Your task to perform on an android device: see sites visited before in the chrome app Image 0: 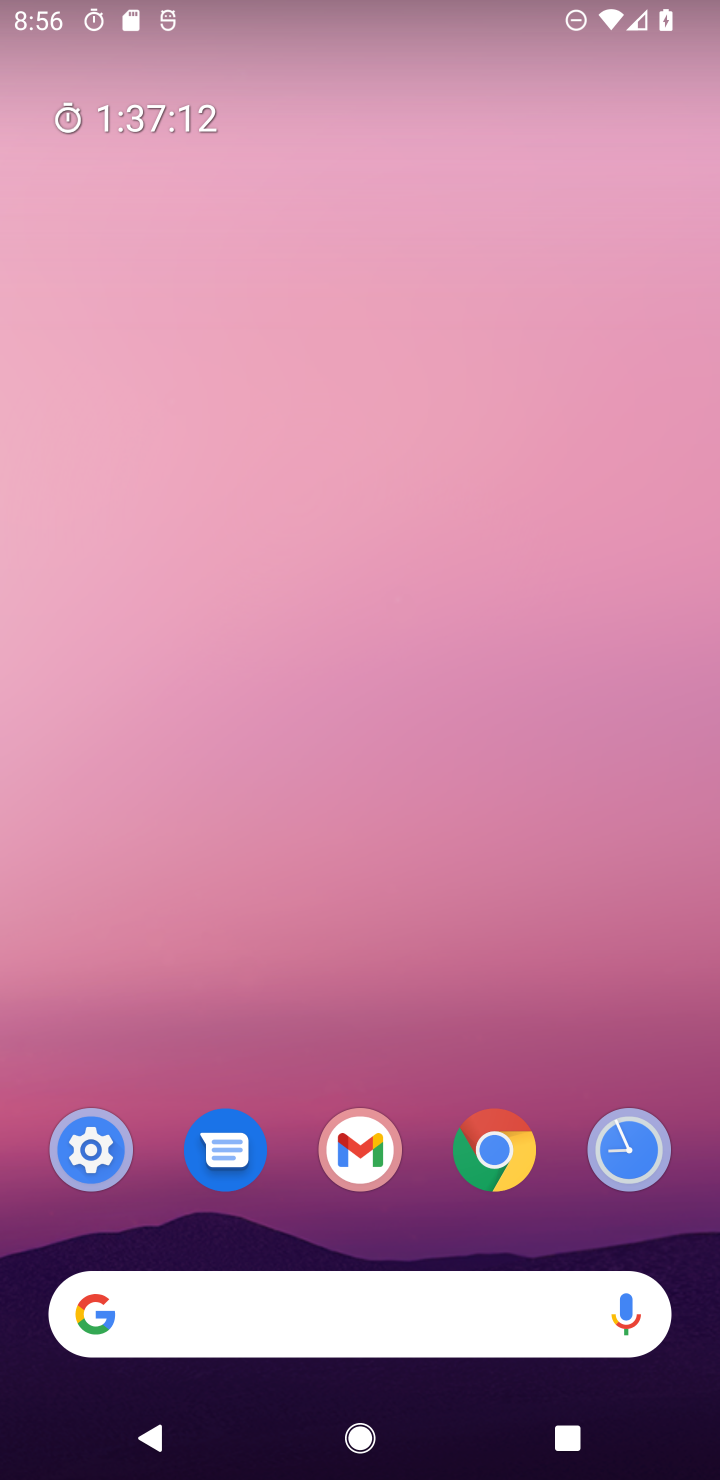
Step 0: drag from (441, 1297) to (495, 24)
Your task to perform on an android device: see sites visited before in the chrome app Image 1: 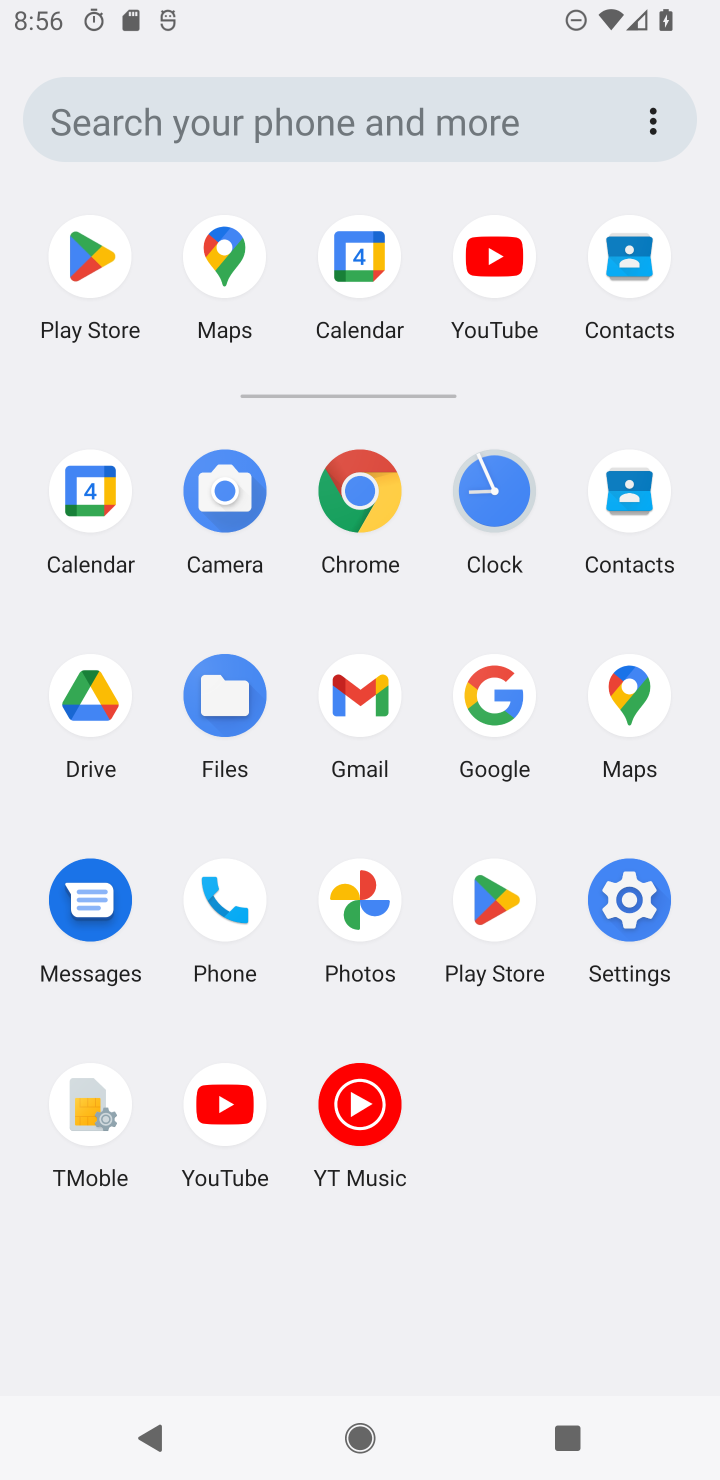
Step 1: click (363, 485)
Your task to perform on an android device: see sites visited before in the chrome app Image 2: 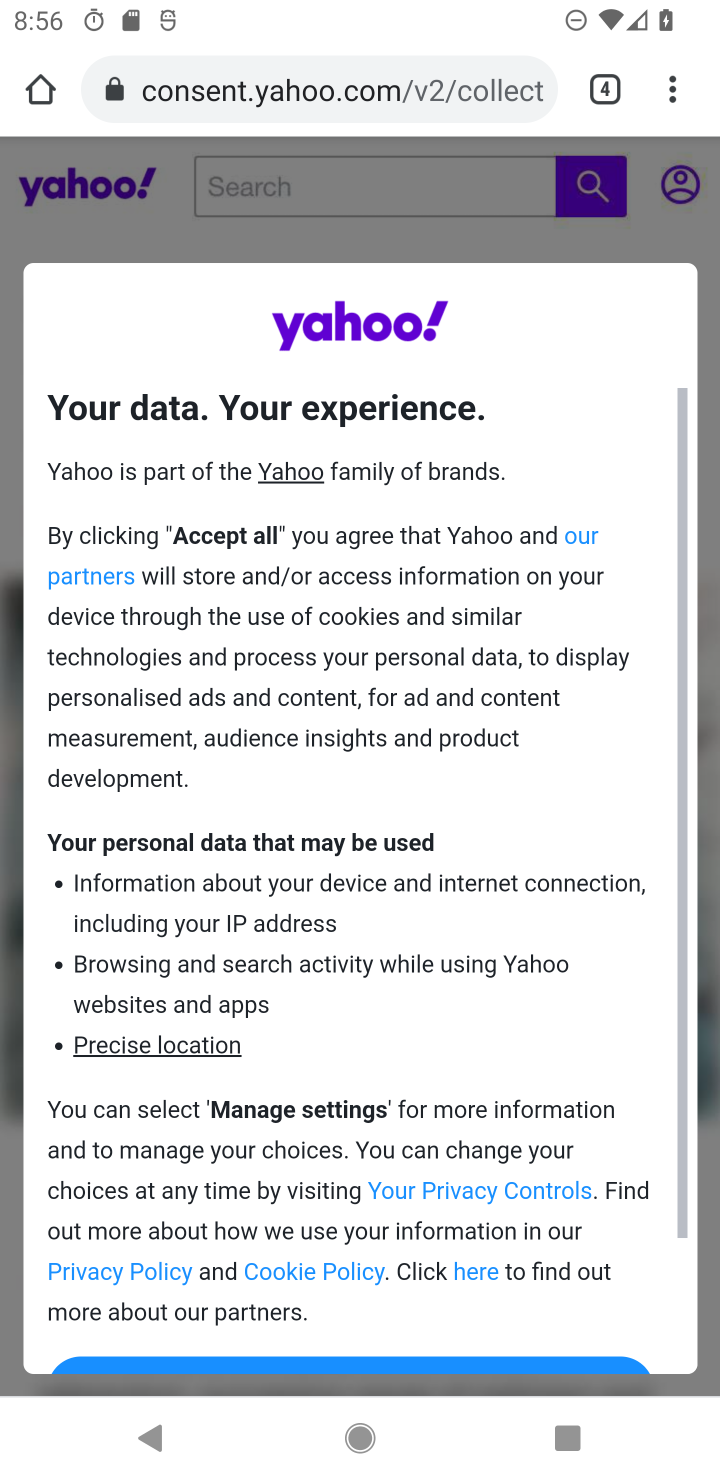
Step 2: task complete